Your task to perform on an android device: Search for Italian restaurants on Maps Image 0: 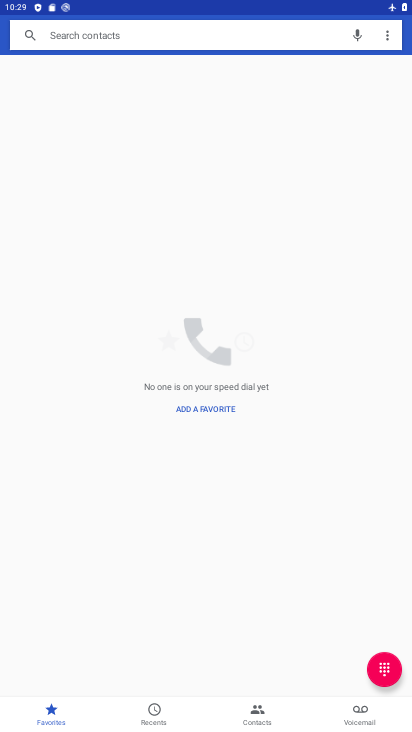
Step 0: drag from (180, 685) to (180, 153)
Your task to perform on an android device: Search for Italian restaurants on Maps Image 1: 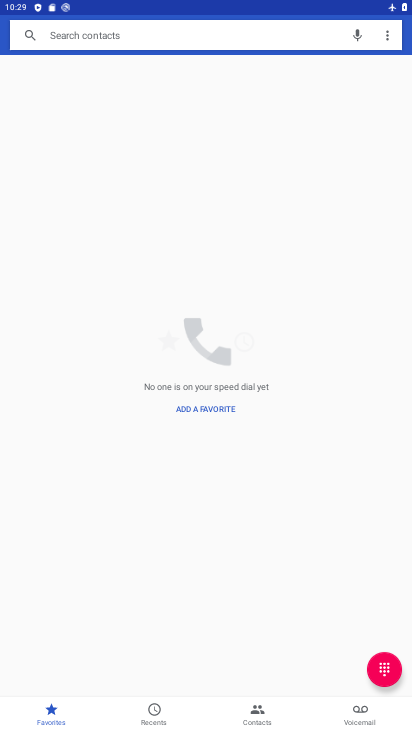
Step 1: press home button
Your task to perform on an android device: Search for Italian restaurants on Maps Image 2: 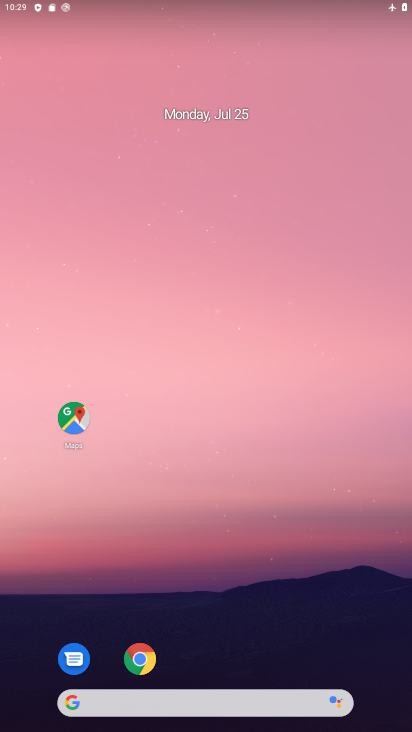
Step 2: drag from (235, 677) to (198, 141)
Your task to perform on an android device: Search for Italian restaurants on Maps Image 3: 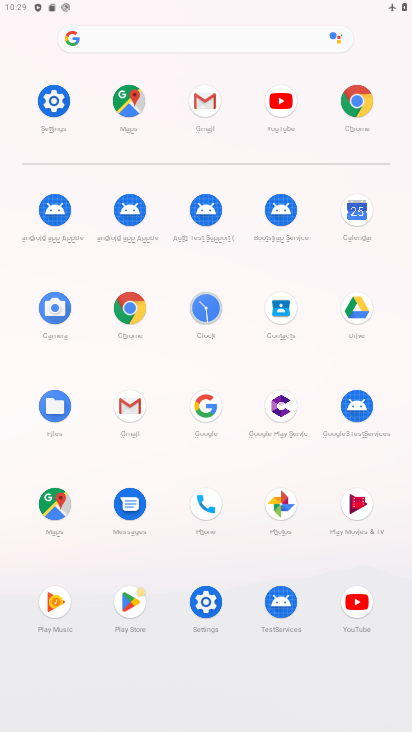
Step 3: click (52, 501)
Your task to perform on an android device: Search for Italian restaurants on Maps Image 4: 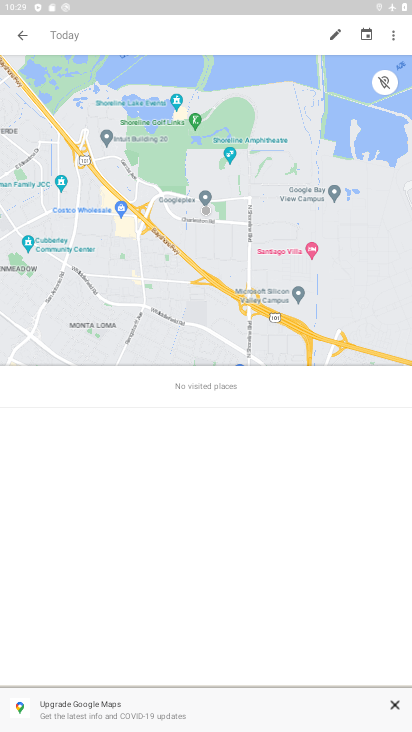
Step 4: click (23, 38)
Your task to perform on an android device: Search for Italian restaurants on Maps Image 5: 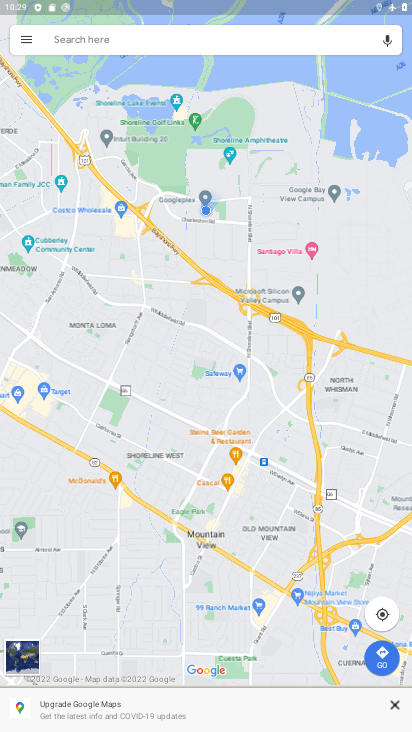
Step 5: click (266, 38)
Your task to perform on an android device: Search for Italian restaurants on Maps Image 6: 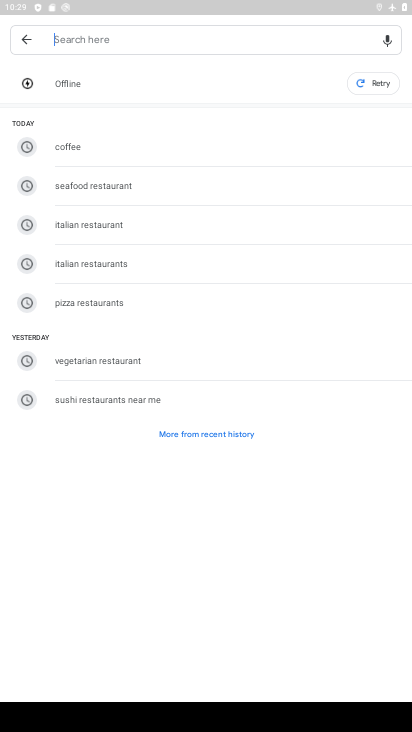
Step 6: click (64, 255)
Your task to perform on an android device: Search for Italian restaurants on Maps Image 7: 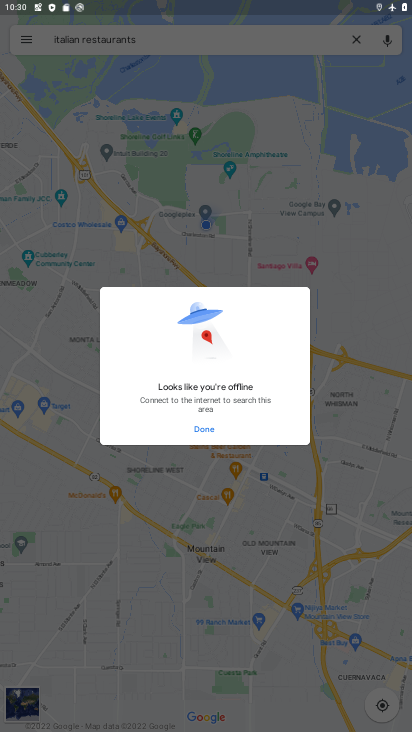
Step 7: task complete